Your task to perform on an android device: What's the latest news in astrophysics? Image 0: 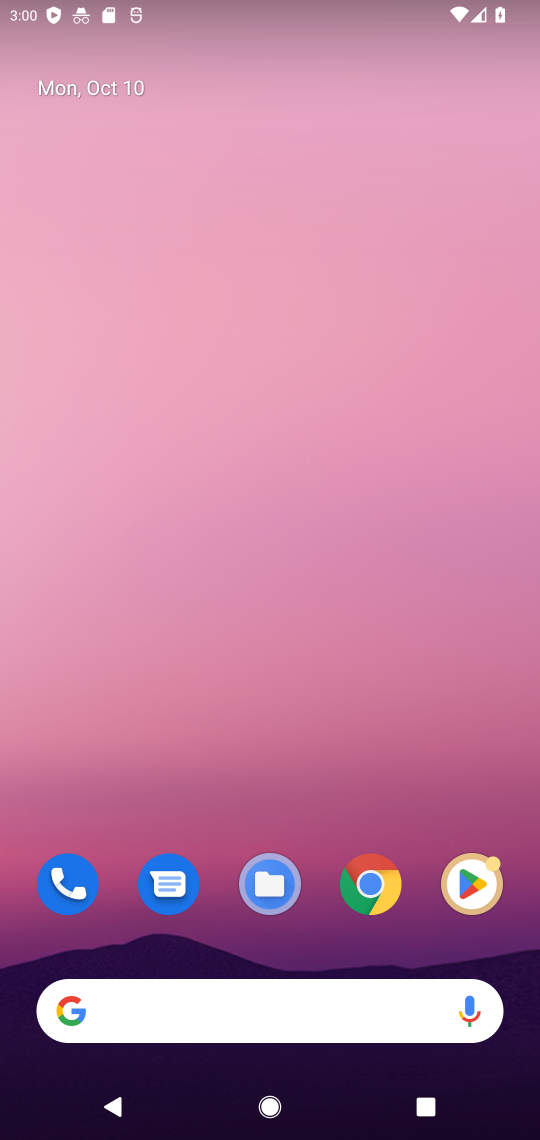
Step 0: click (319, 993)
Your task to perform on an android device: What's the latest news in astrophysics? Image 1: 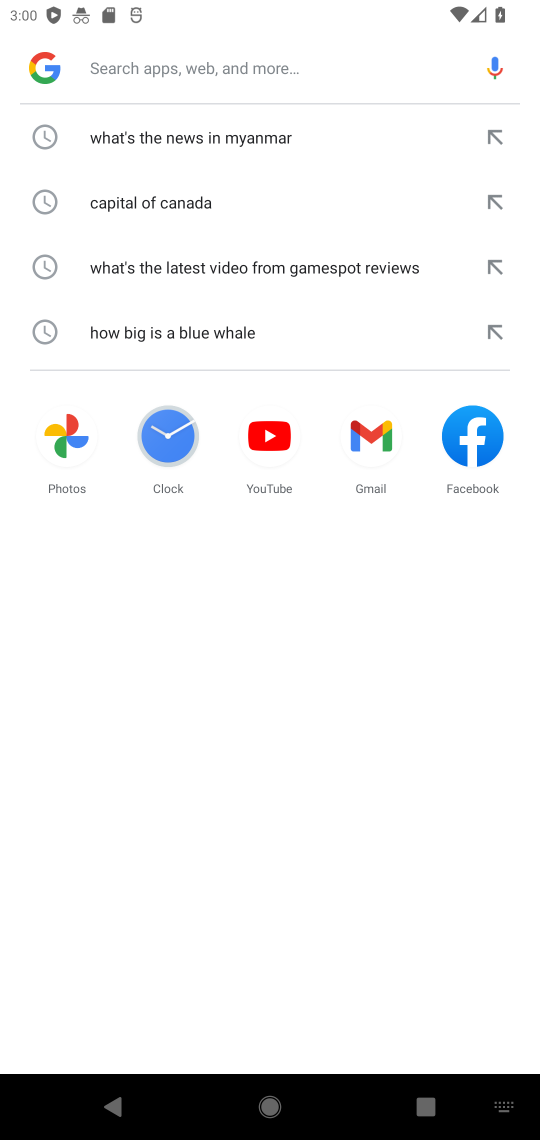
Step 1: type " latest news in astrophysics"
Your task to perform on an android device: What's the latest news in astrophysics? Image 2: 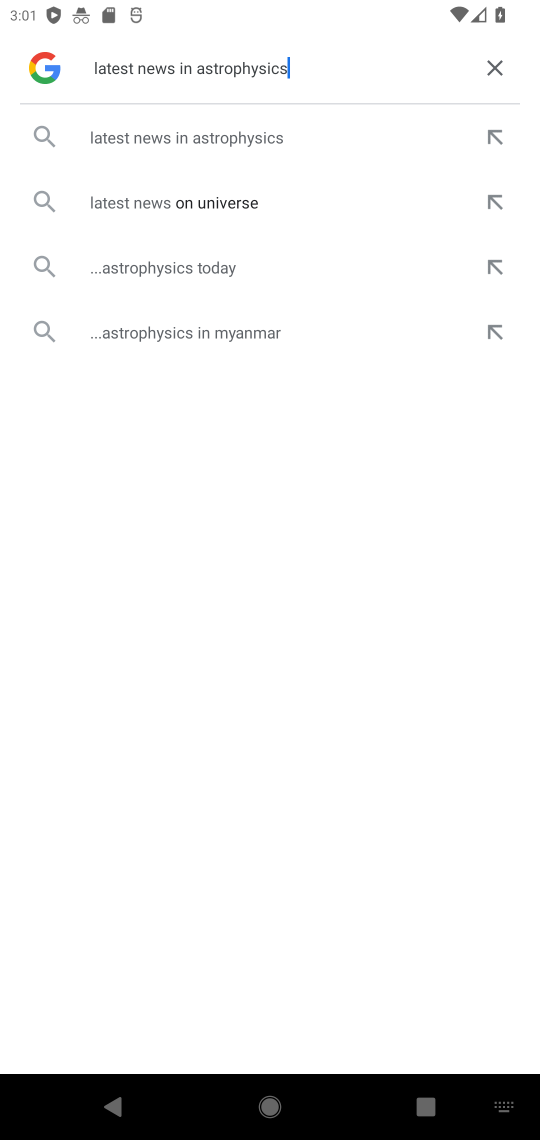
Step 2: click (195, 144)
Your task to perform on an android device: What's the latest news in astrophysics? Image 3: 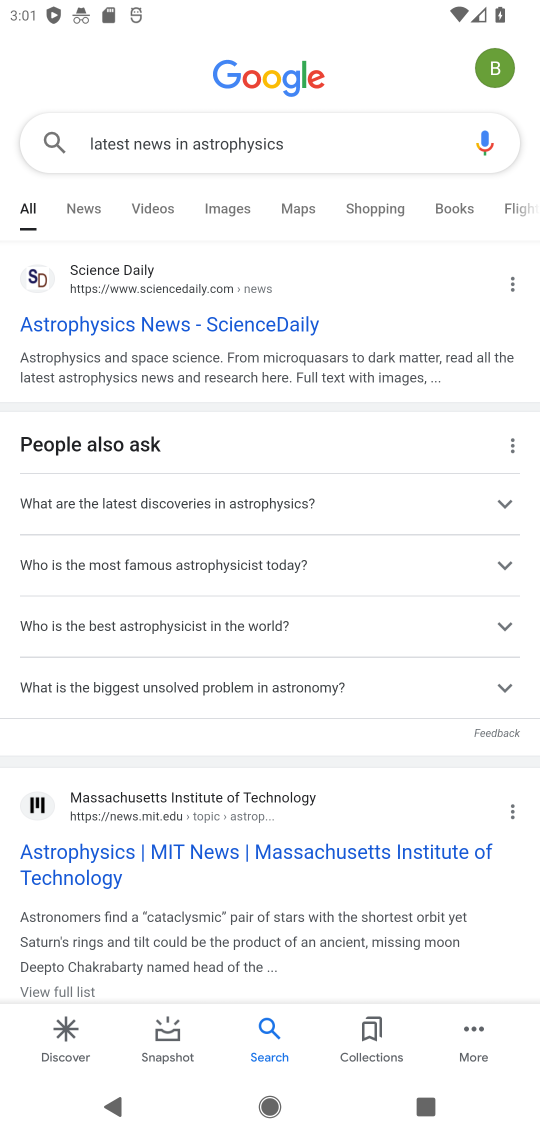
Step 3: click (185, 327)
Your task to perform on an android device: What's the latest news in astrophysics? Image 4: 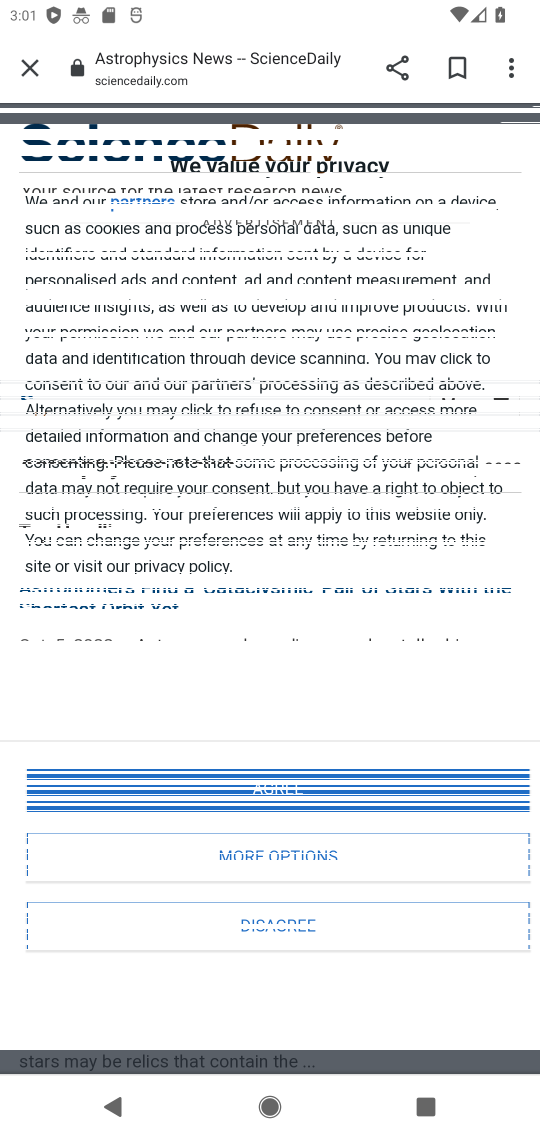
Step 4: click (328, 787)
Your task to perform on an android device: What's the latest news in astrophysics? Image 5: 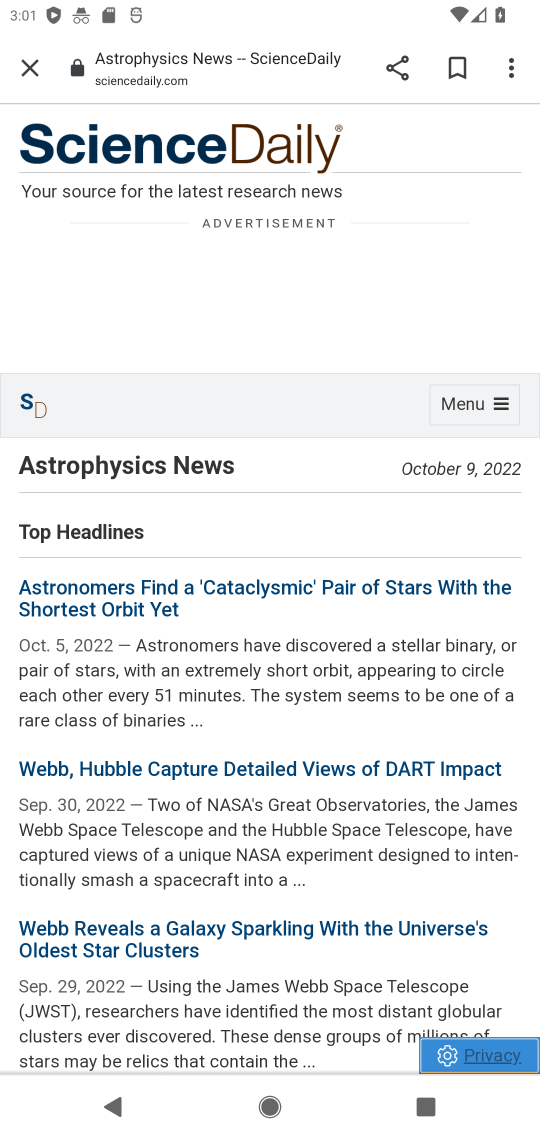
Step 5: task complete